Your task to perform on an android device: open a new tab in the chrome app Image 0: 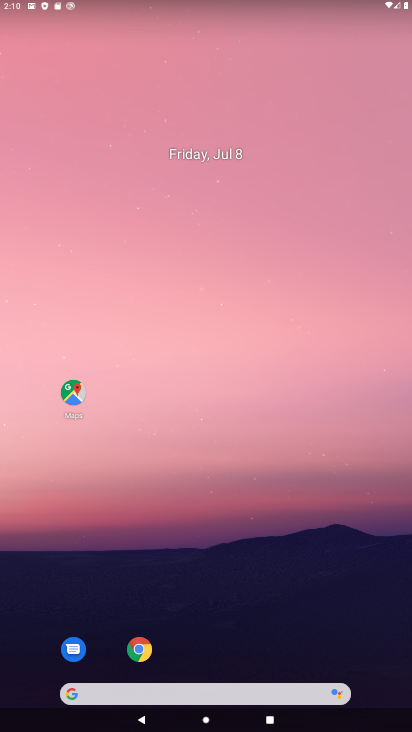
Step 0: drag from (283, 529) to (190, 309)
Your task to perform on an android device: open a new tab in the chrome app Image 1: 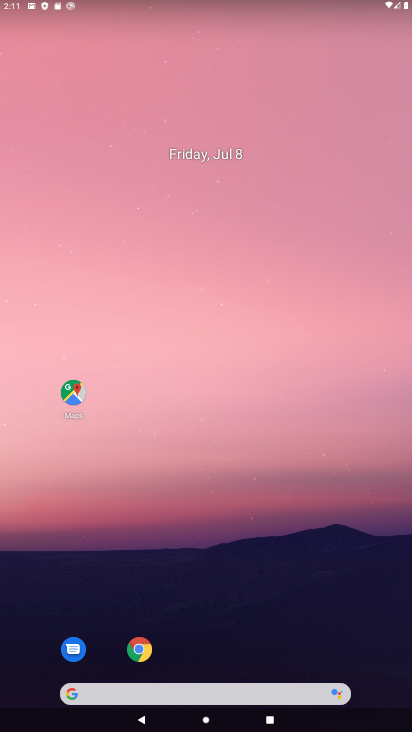
Step 1: drag from (244, 571) to (175, 161)
Your task to perform on an android device: open a new tab in the chrome app Image 2: 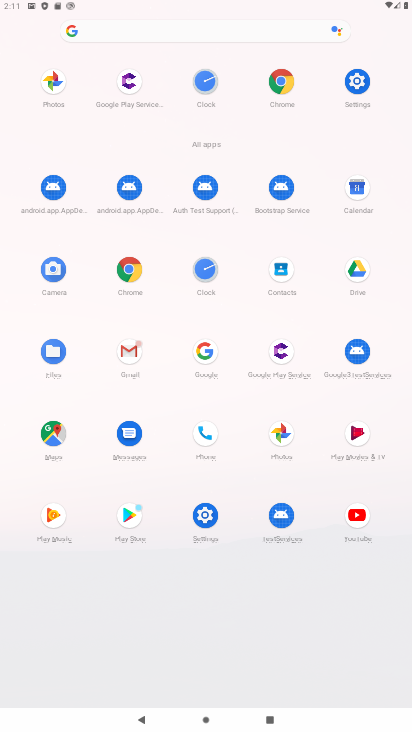
Step 2: click (133, 267)
Your task to perform on an android device: open a new tab in the chrome app Image 3: 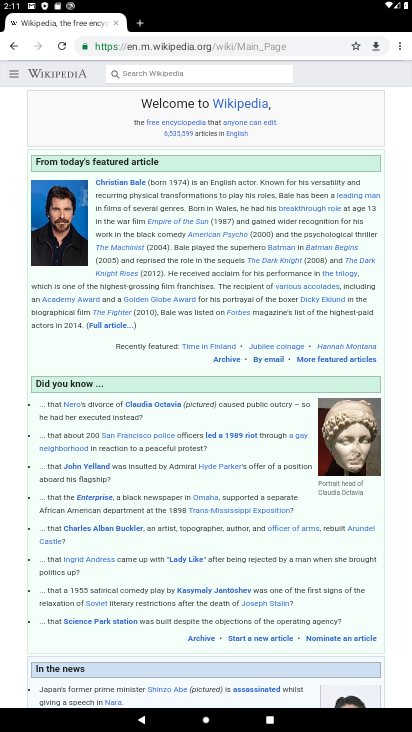
Step 3: task complete